Your task to perform on an android device: toggle sleep mode Image 0: 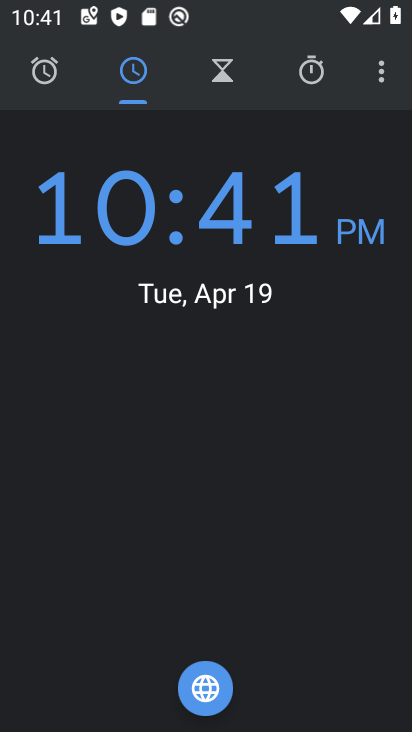
Step 0: press home button
Your task to perform on an android device: toggle sleep mode Image 1: 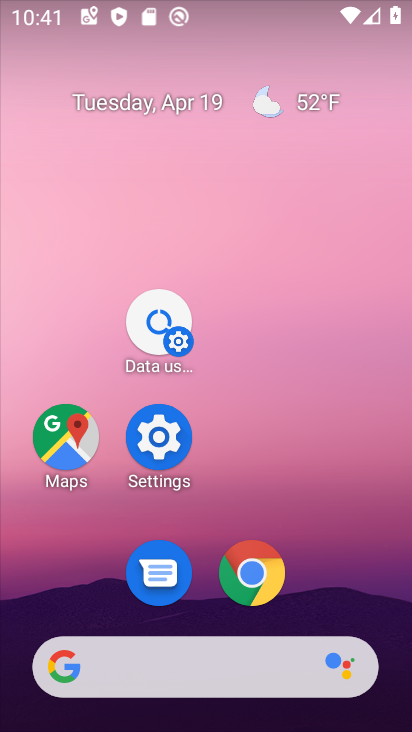
Step 1: drag from (354, 615) to (370, 5)
Your task to perform on an android device: toggle sleep mode Image 2: 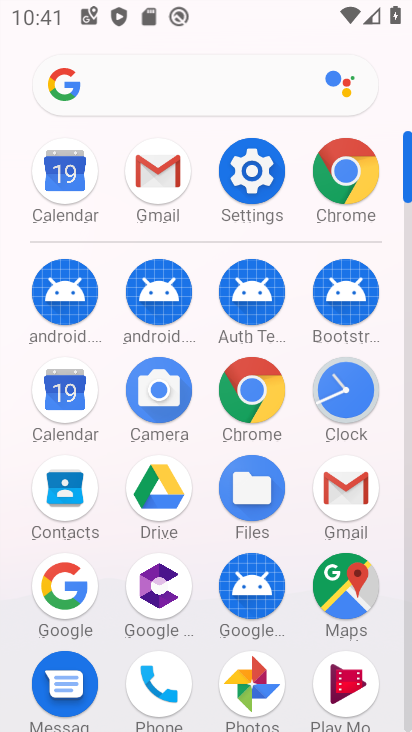
Step 2: click (250, 172)
Your task to perform on an android device: toggle sleep mode Image 3: 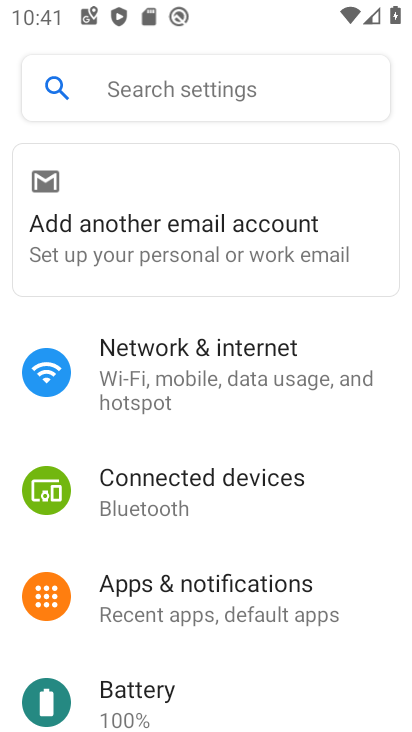
Step 3: drag from (332, 638) to (351, 247)
Your task to perform on an android device: toggle sleep mode Image 4: 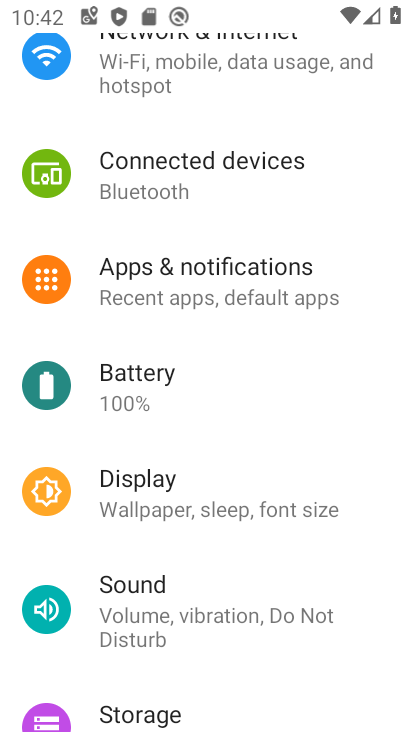
Step 4: click (104, 504)
Your task to perform on an android device: toggle sleep mode Image 5: 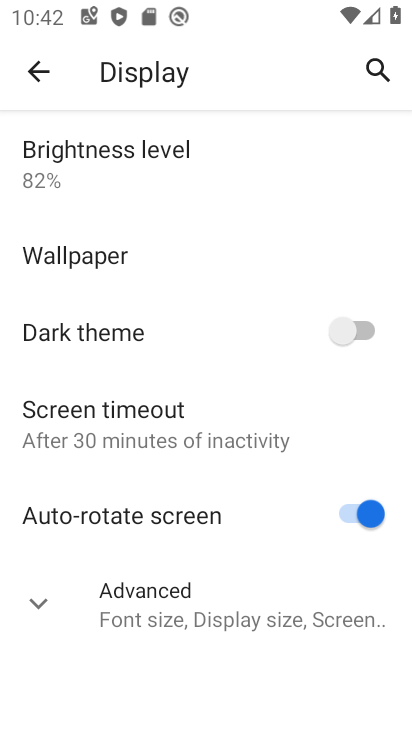
Step 5: click (36, 610)
Your task to perform on an android device: toggle sleep mode Image 6: 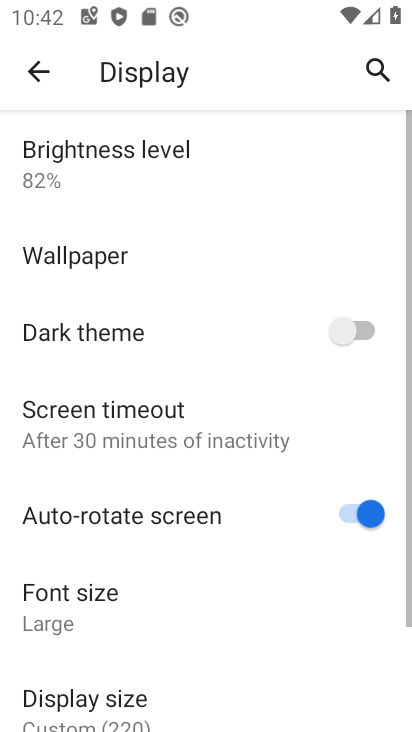
Step 6: task complete